Your task to perform on an android device: allow cookies in the chrome app Image 0: 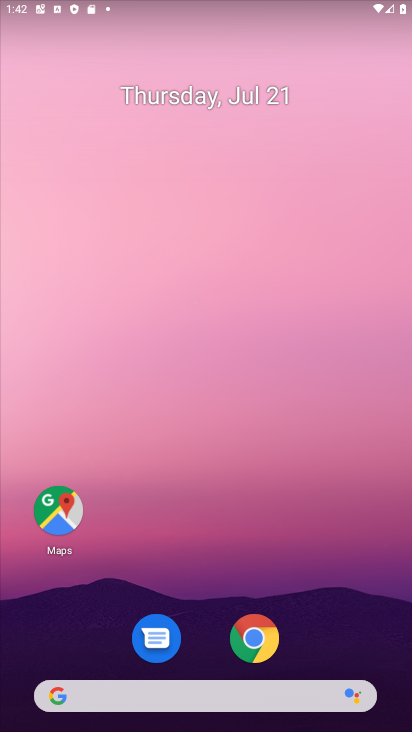
Step 0: click (264, 627)
Your task to perform on an android device: allow cookies in the chrome app Image 1: 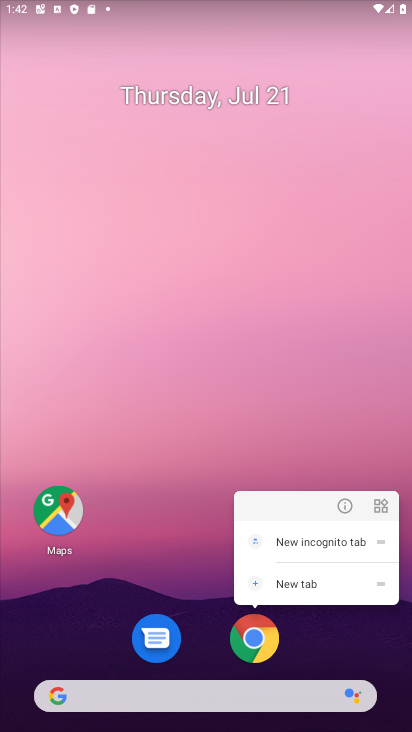
Step 1: click (264, 627)
Your task to perform on an android device: allow cookies in the chrome app Image 2: 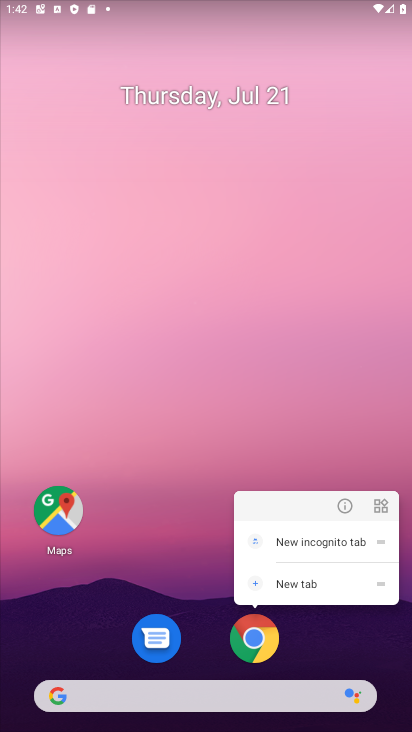
Step 2: click (264, 627)
Your task to perform on an android device: allow cookies in the chrome app Image 3: 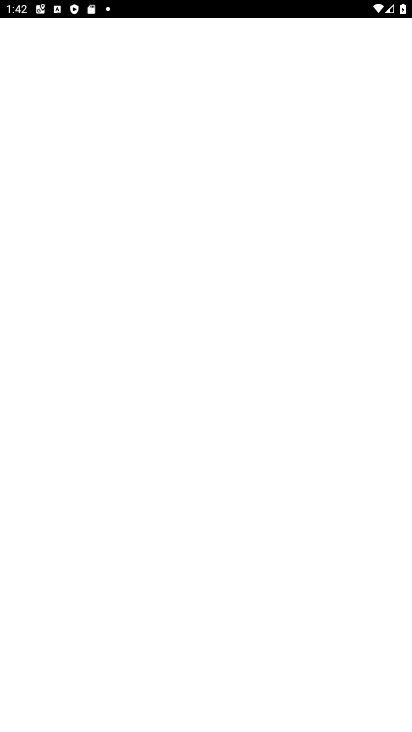
Step 3: click (264, 627)
Your task to perform on an android device: allow cookies in the chrome app Image 4: 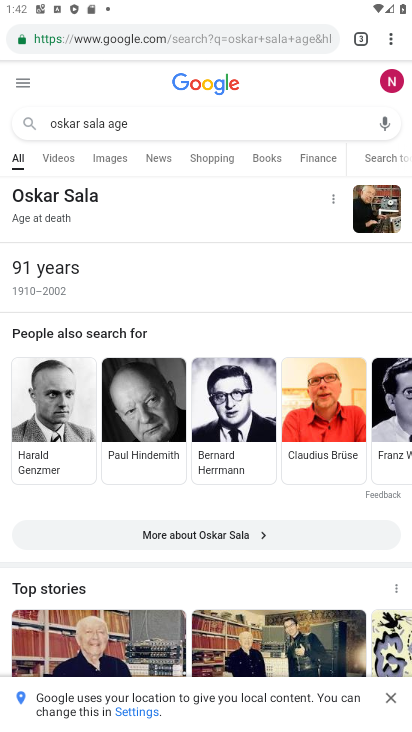
Step 4: click (393, 37)
Your task to perform on an android device: allow cookies in the chrome app Image 5: 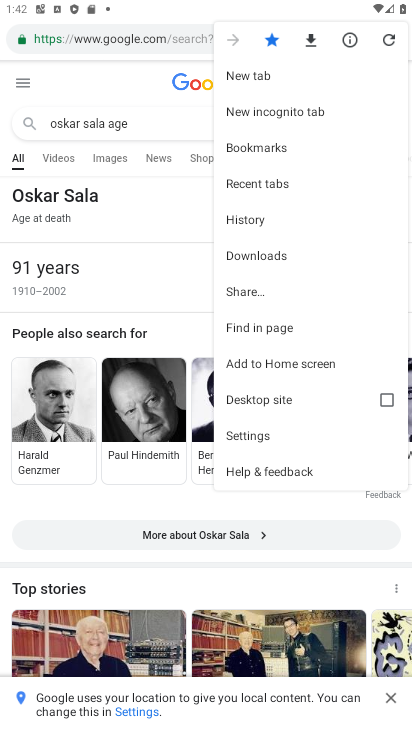
Step 5: click (279, 433)
Your task to perform on an android device: allow cookies in the chrome app Image 6: 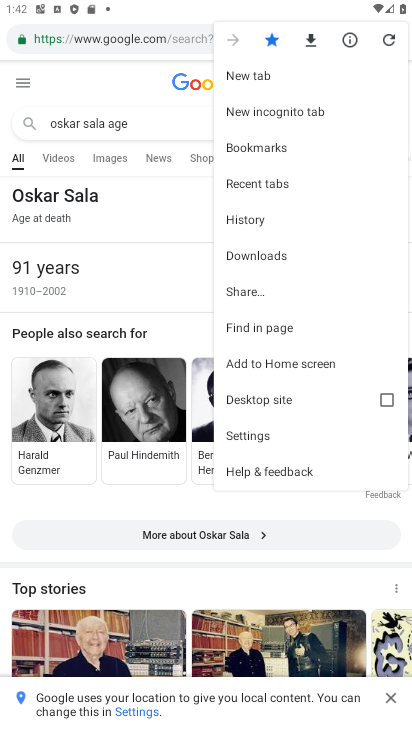
Step 6: click (279, 433)
Your task to perform on an android device: allow cookies in the chrome app Image 7: 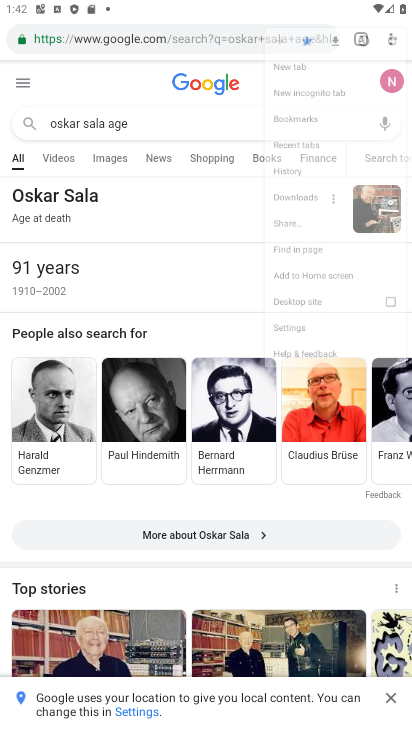
Step 7: click (279, 433)
Your task to perform on an android device: allow cookies in the chrome app Image 8: 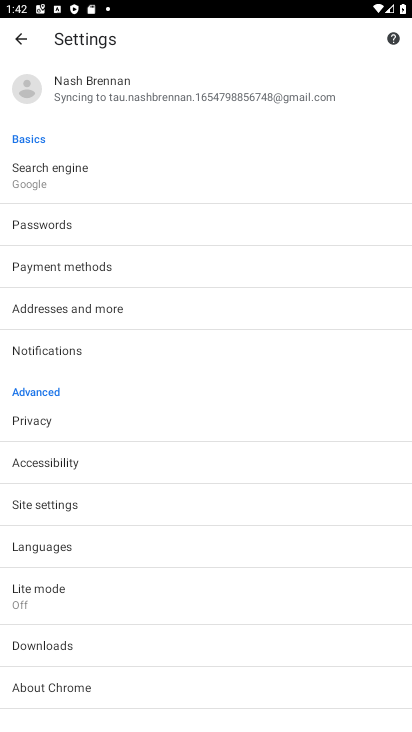
Step 8: click (175, 517)
Your task to perform on an android device: allow cookies in the chrome app Image 9: 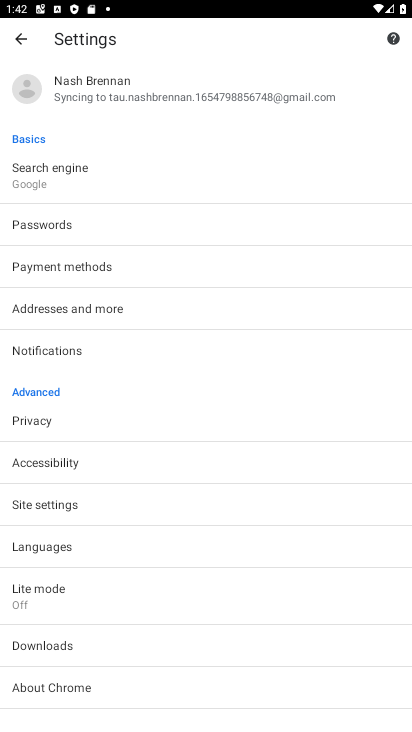
Step 9: click (175, 517)
Your task to perform on an android device: allow cookies in the chrome app Image 10: 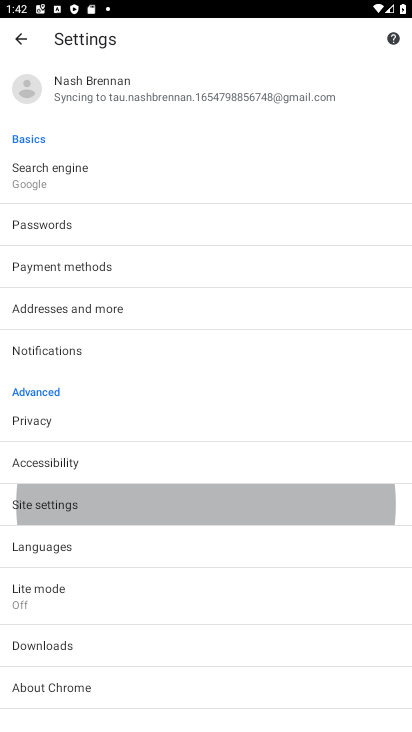
Step 10: click (175, 517)
Your task to perform on an android device: allow cookies in the chrome app Image 11: 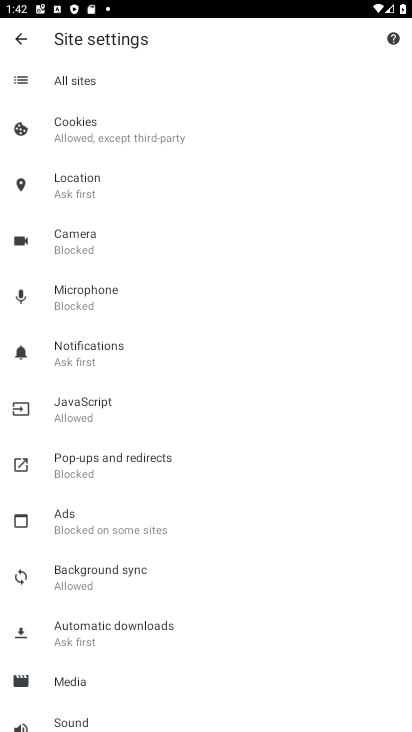
Step 11: click (233, 135)
Your task to perform on an android device: allow cookies in the chrome app Image 12: 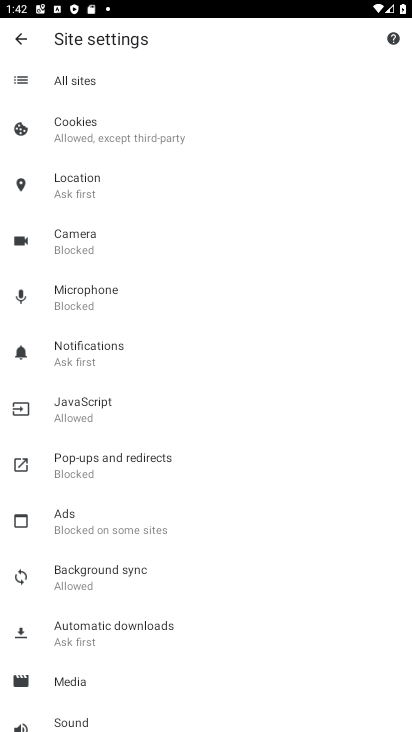
Step 12: click (233, 135)
Your task to perform on an android device: allow cookies in the chrome app Image 13: 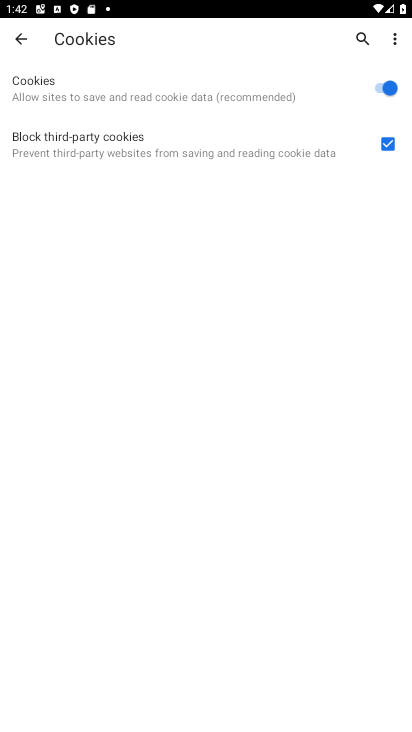
Step 13: task complete